Your task to perform on an android device: Check the weather Image 0: 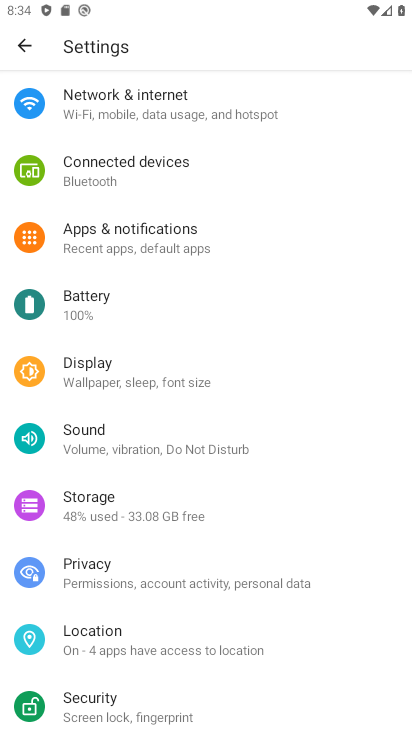
Step 0: press home button
Your task to perform on an android device: Check the weather Image 1: 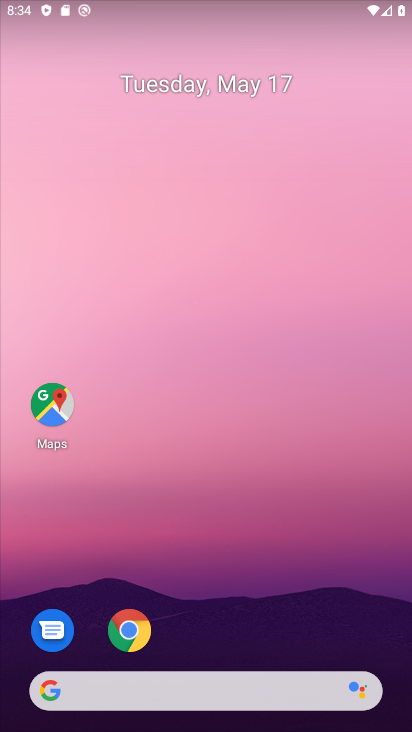
Step 1: drag from (241, 602) to (215, 160)
Your task to perform on an android device: Check the weather Image 2: 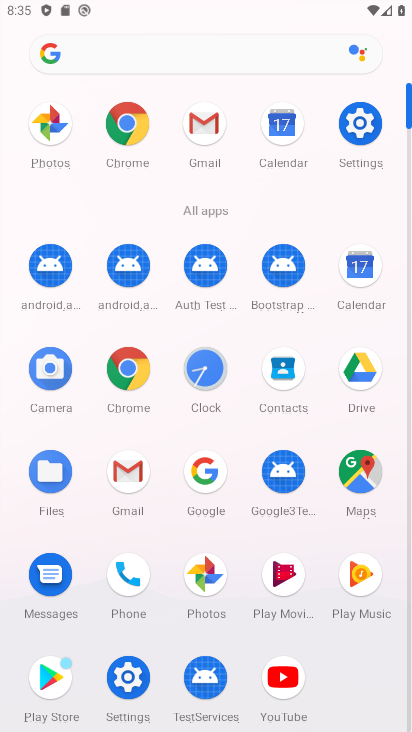
Step 2: drag from (226, 633) to (238, 427)
Your task to perform on an android device: Check the weather Image 3: 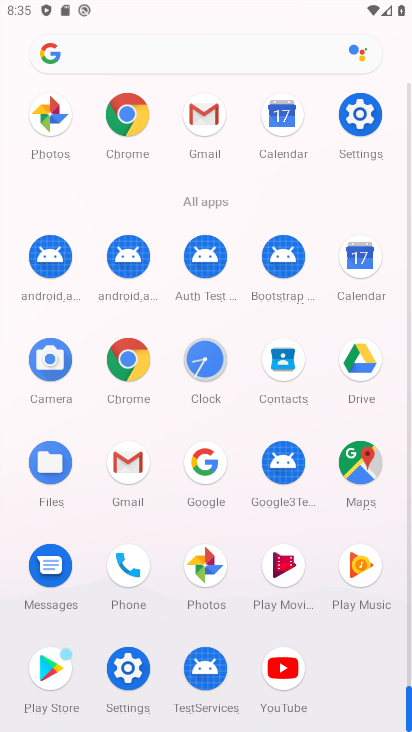
Step 3: click (207, 483)
Your task to perform on an android device: Check the weather Image 4: 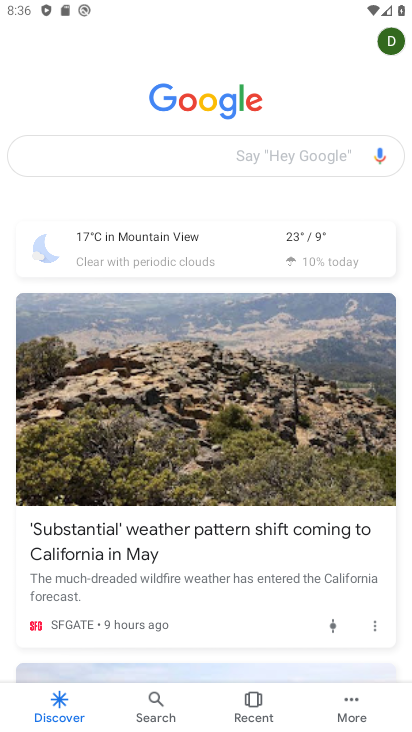
Step 4: click (231, 155)
Your task to perform on an android device: Check the weather Image 5: 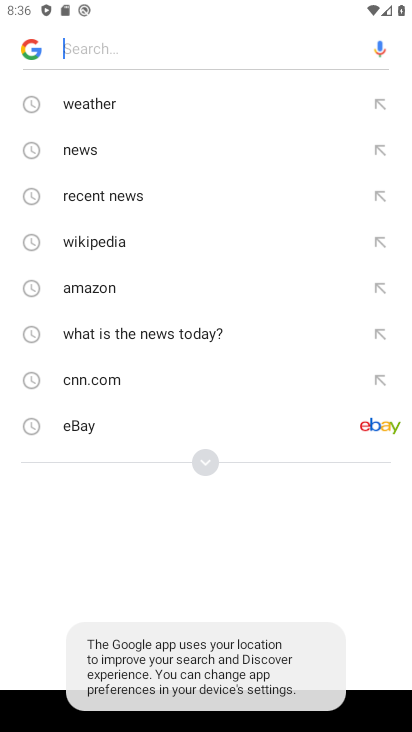
Step 5: click (103, 106)
Your task to perform on an android device: Check the weather Image 6: 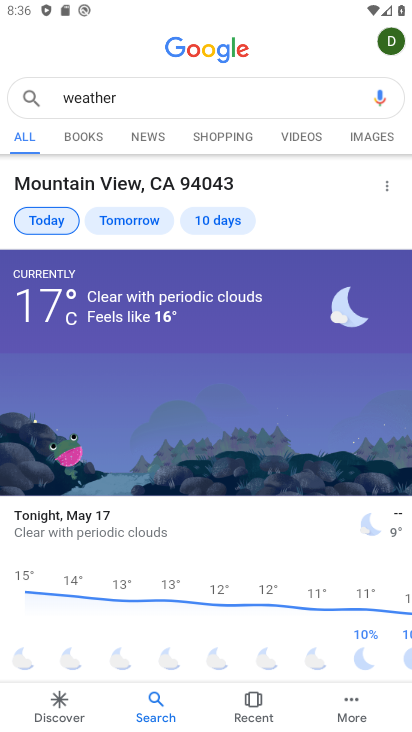
Step 6: task complete